Your task to perform on an android device: Clear the cart on amazon.com. Add razer blackwidow to the cart on amazon.com, then select checkout. Image 0: 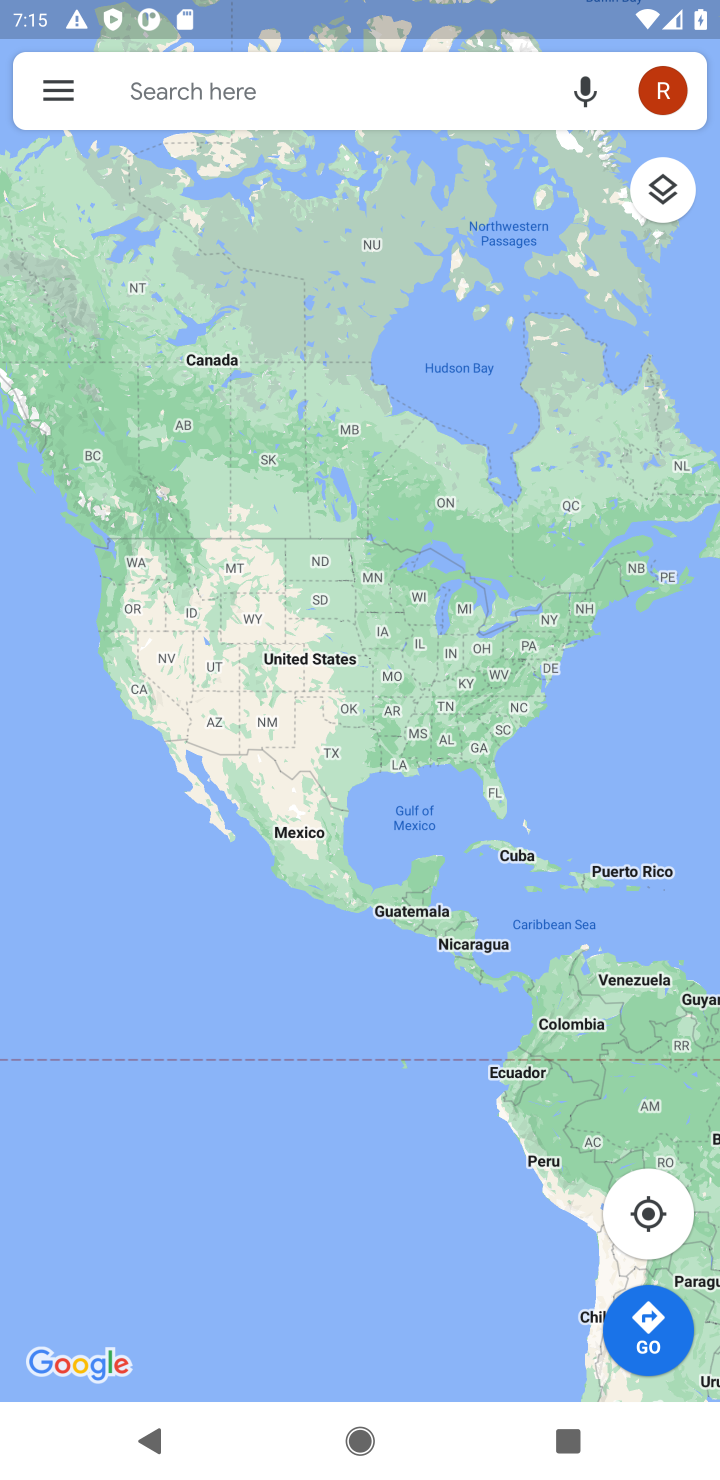
Step 0: press home button
Your task to perform on an android device: Clear the cart on amazon.com. Add razer blackwidow to the cart on amazon.com, then select checkout. Image 1: 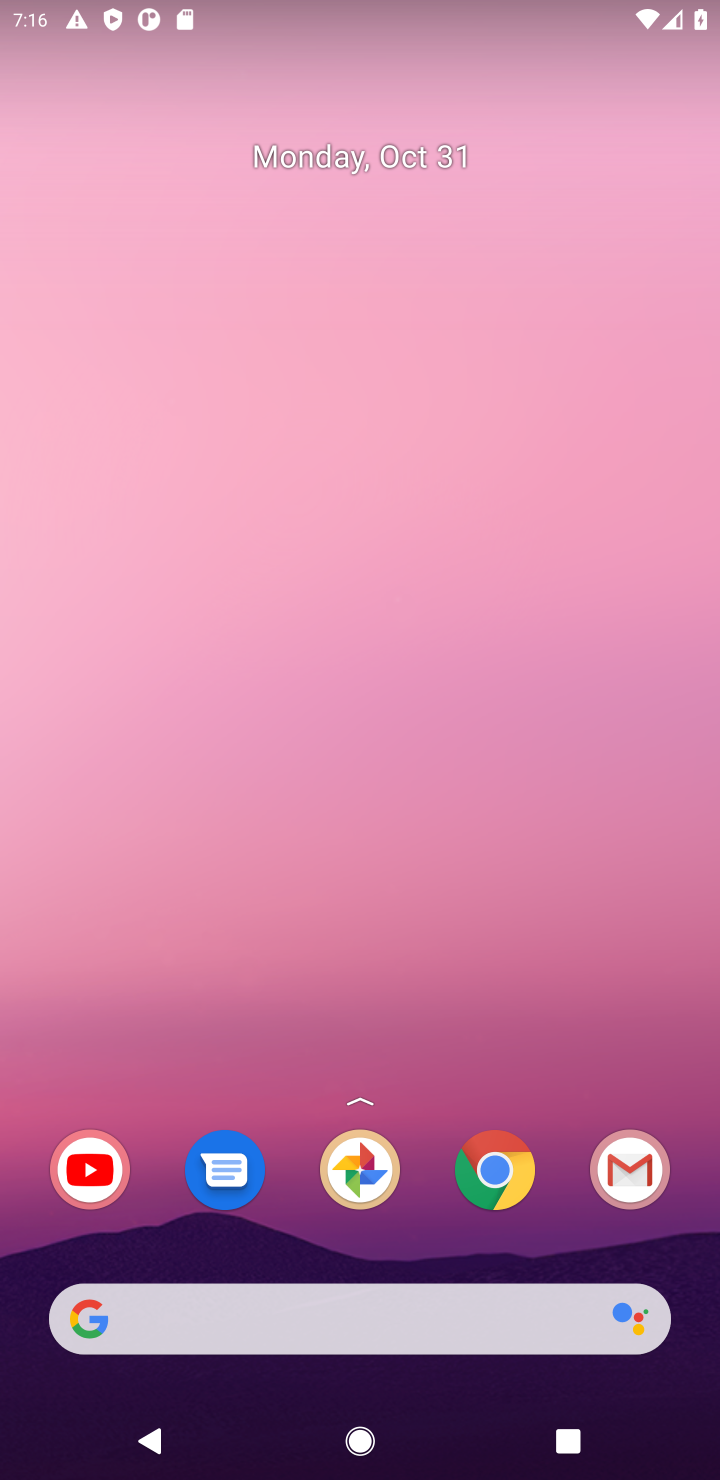
Step 1: click (500, 1166)
Your task to perform on an android device: Clear the cart on amazon.com. Add razer blackwidow to the cart on amazon.com, then select checkout. Image 2: 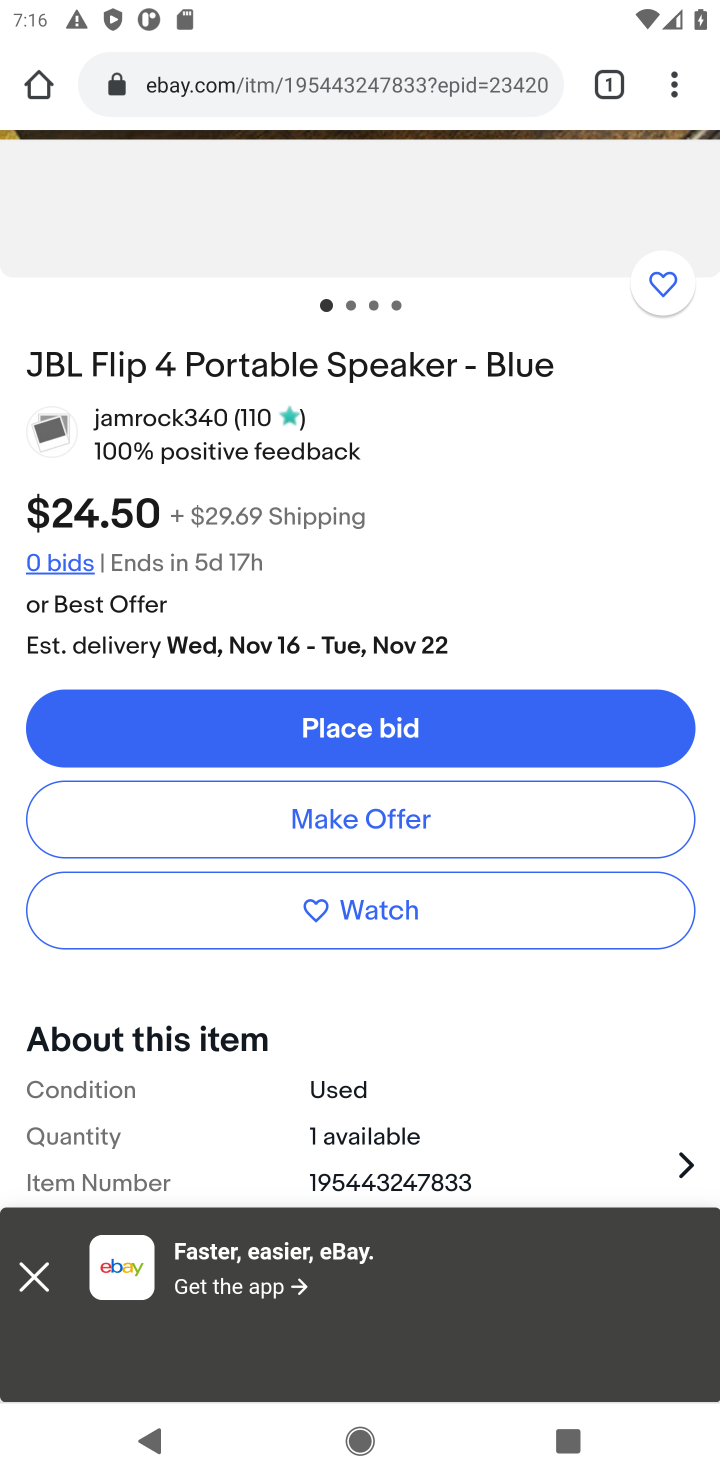
Step 2: click (297, 80)
Your task to perform on an android device: Clear the cart on amazon.com. Add razer blackwidow to the cart on amazon.com, then select checkout. Image 3: 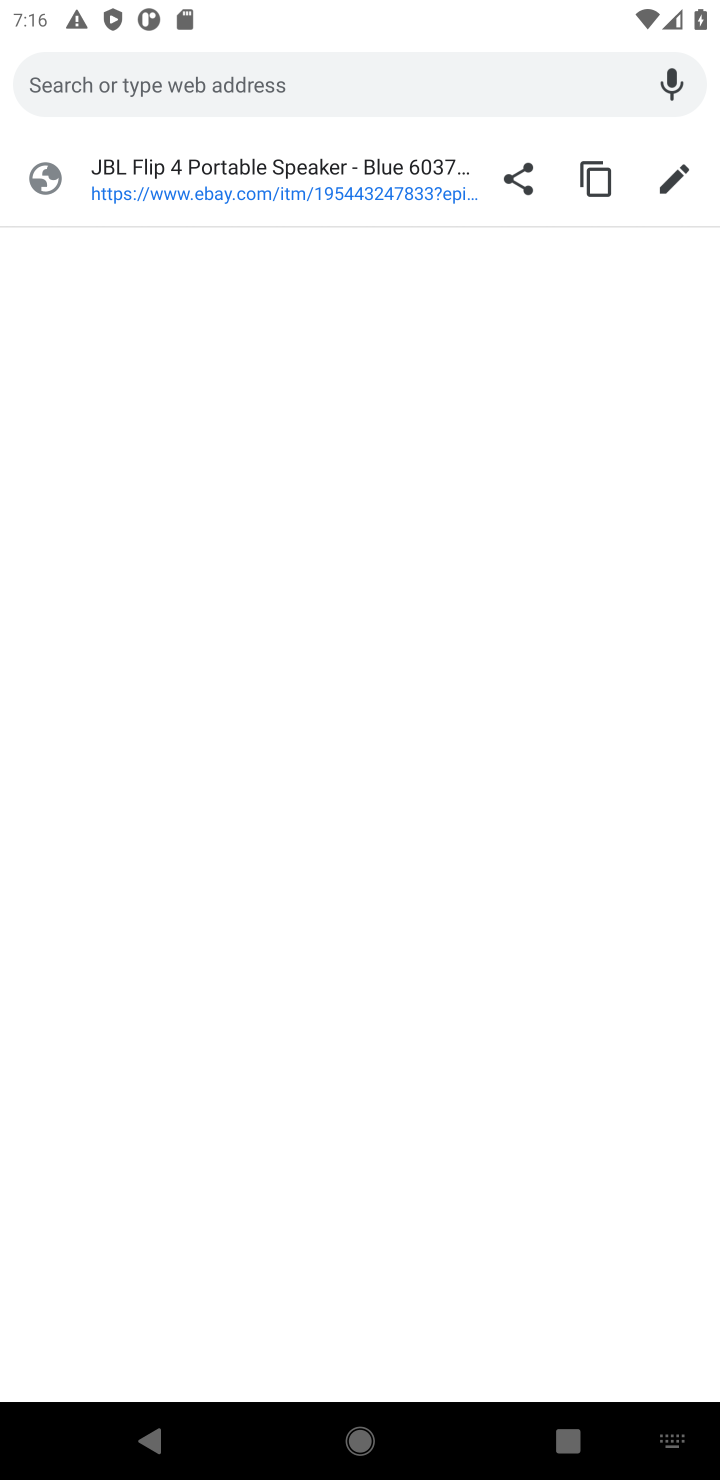
Step 3: press enter
Your task to perform on an android device: Clear the cart on amazon.com. Add razer blackwidow to the cart on amazon.com, then select checkout. Image 4: 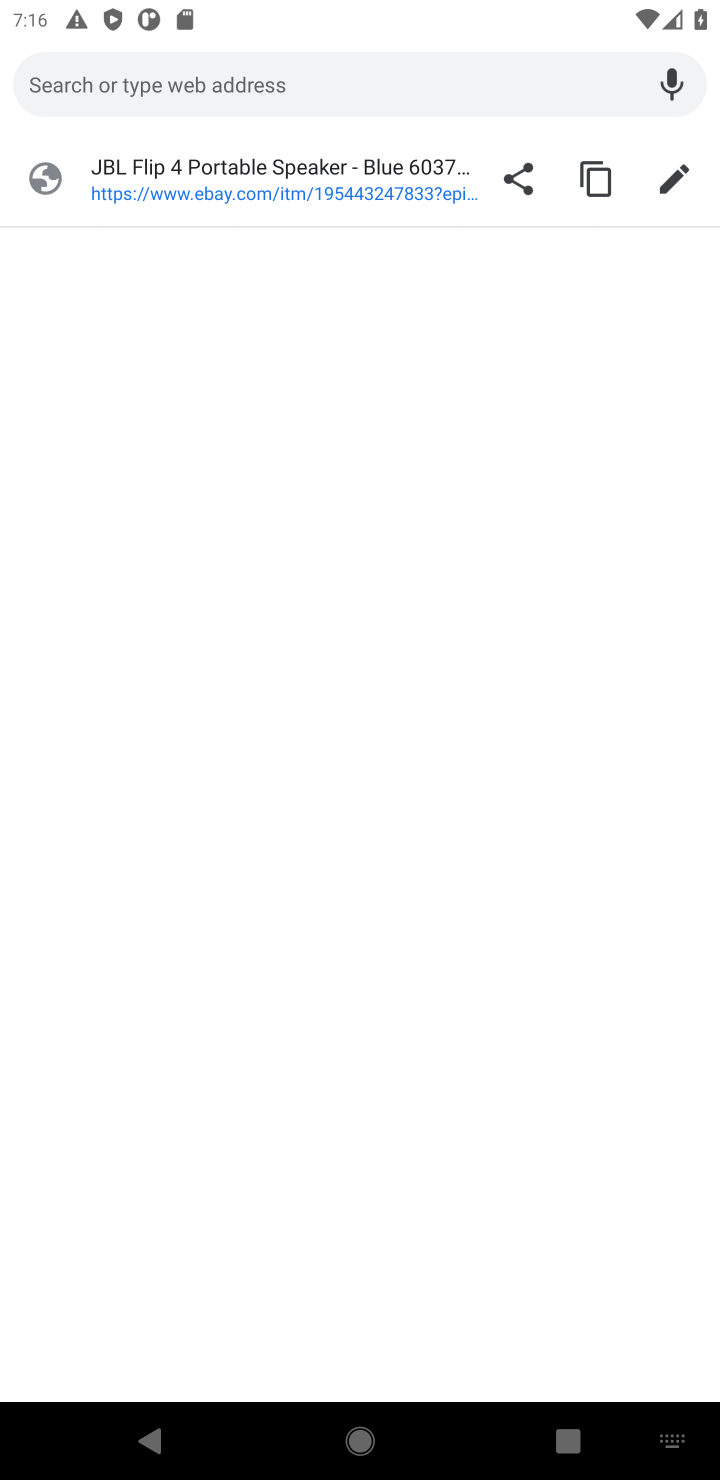
Step 4: type "amazon.com"
Your task to perform on an android device: Clear the cart on amazon.com. Add razer blackwidow to the cart on amazon.com, then select checkout. Image 5: 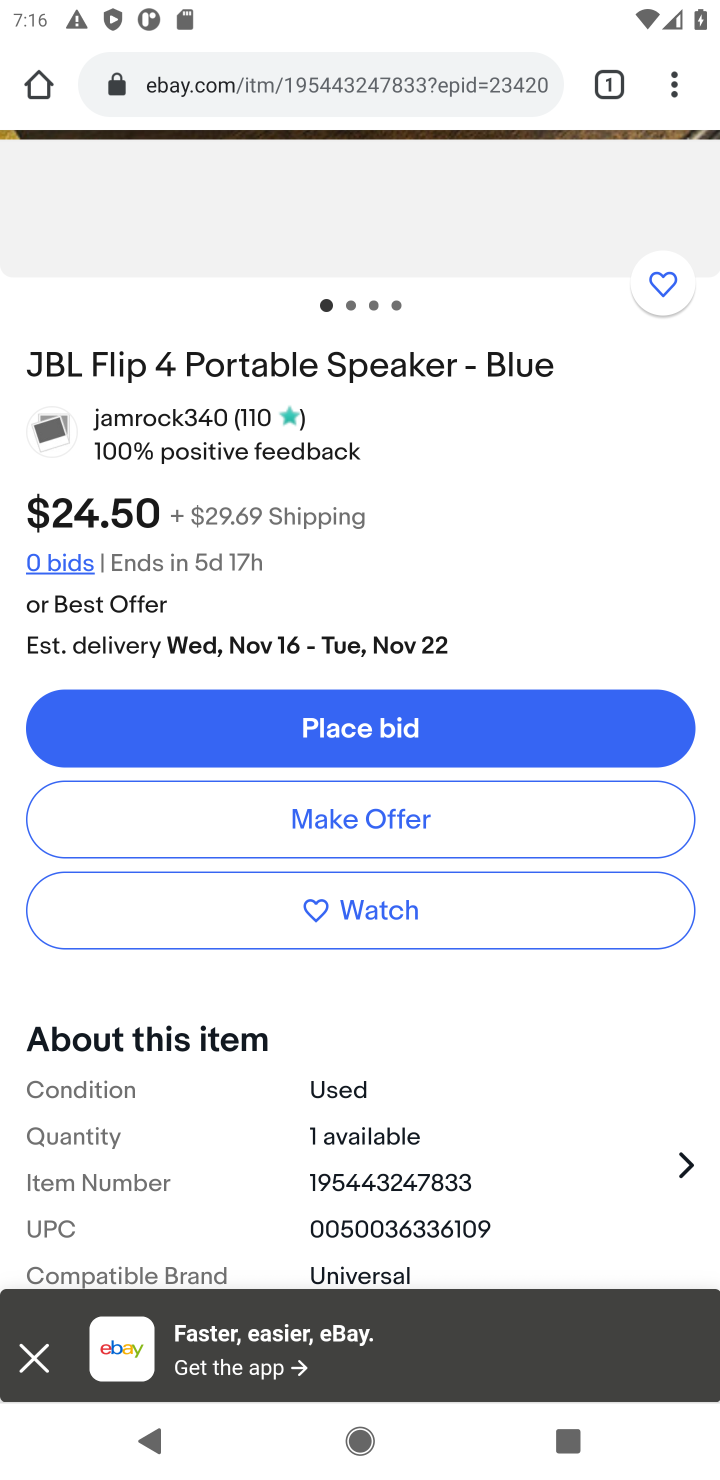
Step 5: click (343, 74)
Your task to perform on an android device: Clear the cart on amazon.com. Add razer blackwidow to the cart on amazon.com, then select checkout. Image 6: 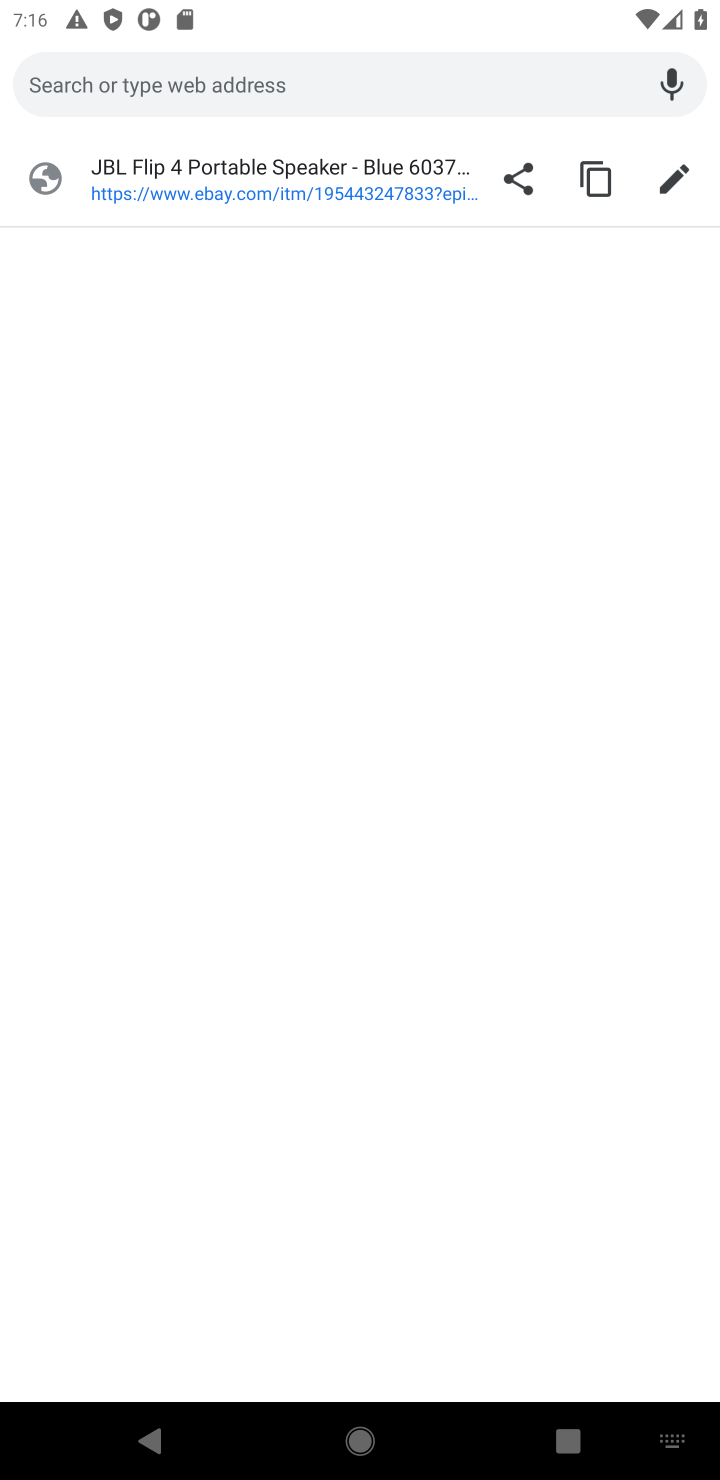
Step 6: type "amazon.com"
Your task to perform on an android device: Clear the cart on amazon.com. Add razer blackwidow to the cart on amazon.com, then select checkout. Image 7: 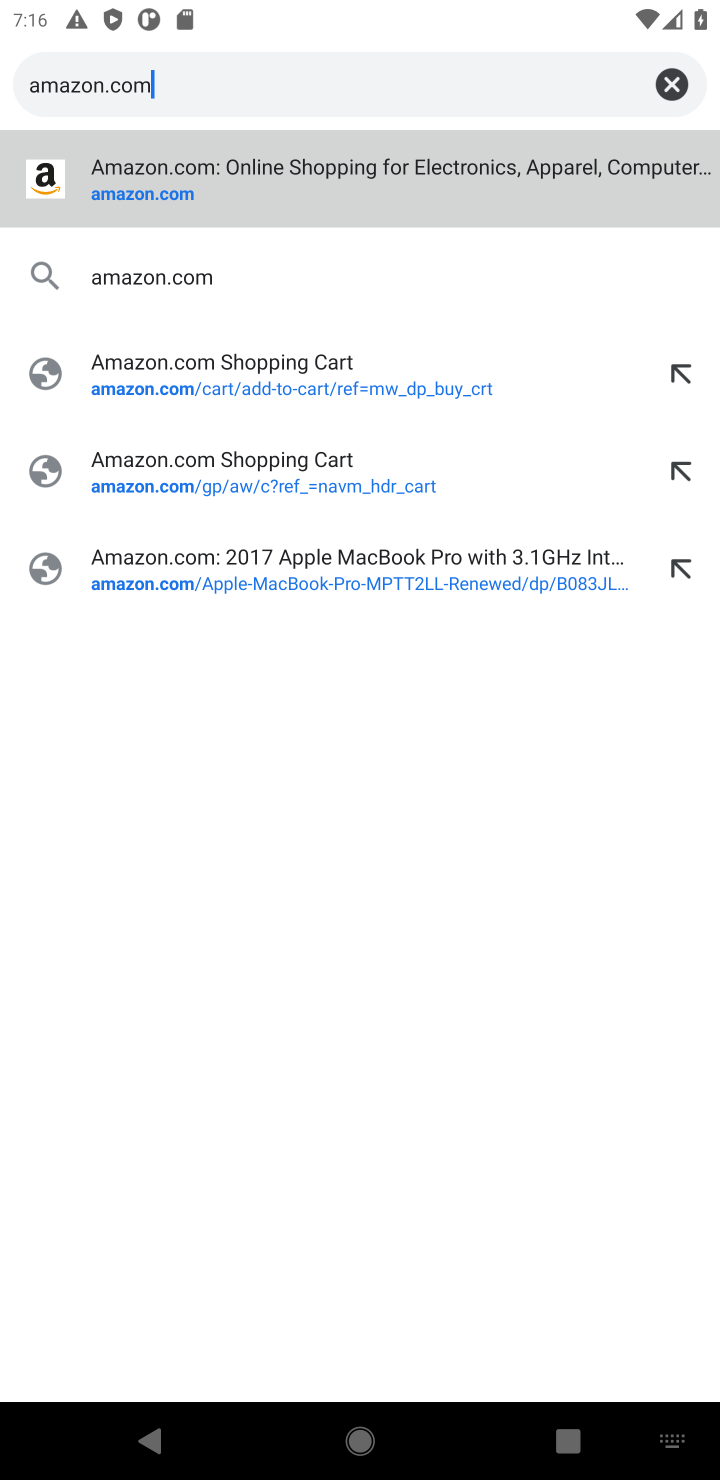
Step 7: press enter
Your task to perform on an android device: Clear the cart on amazon.com. Add razer blackwidow to the cart on amazon.com, then select checkout. Image 8: 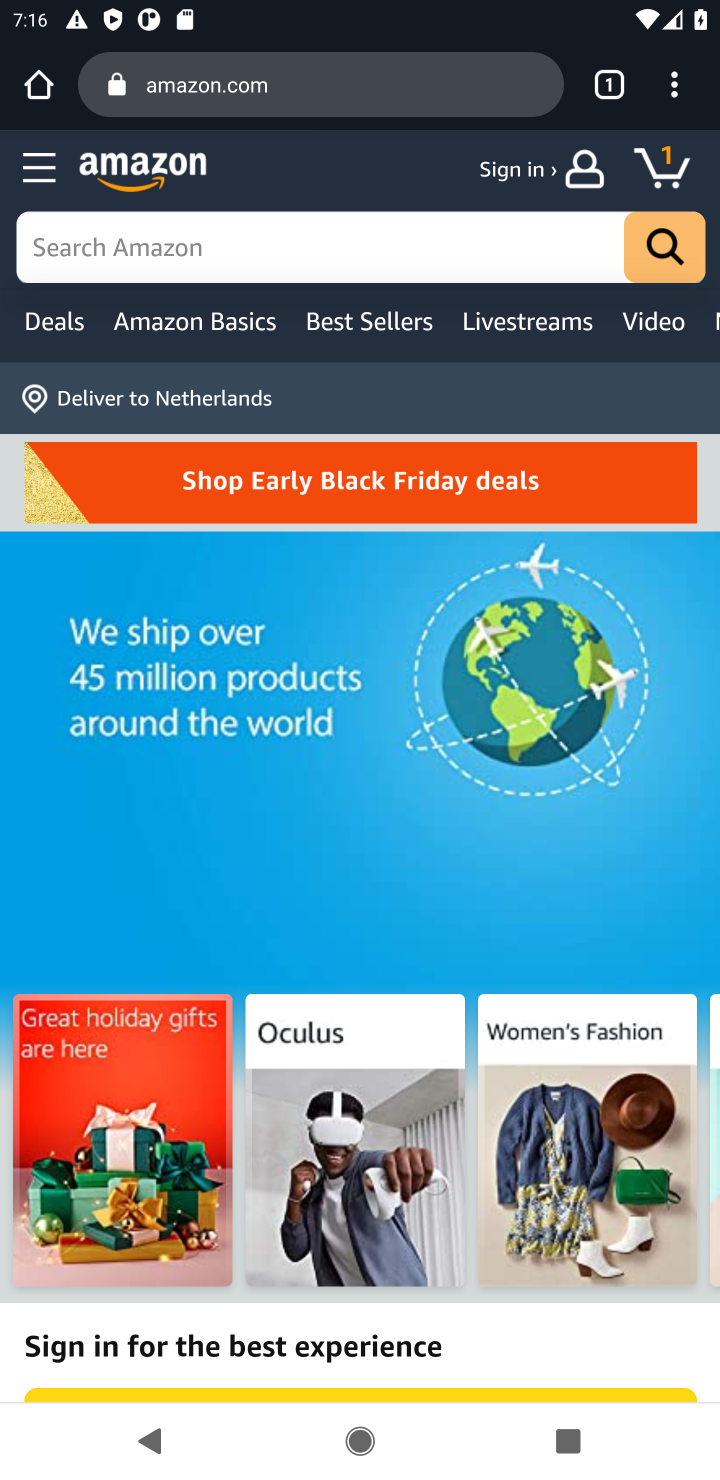
Step 8: click (661, 176)
Your task to perform on an android device: Clear the cart on amazon.com. Add razer blackwidow to the cart on amazon.com, then select checkout. Image 9: 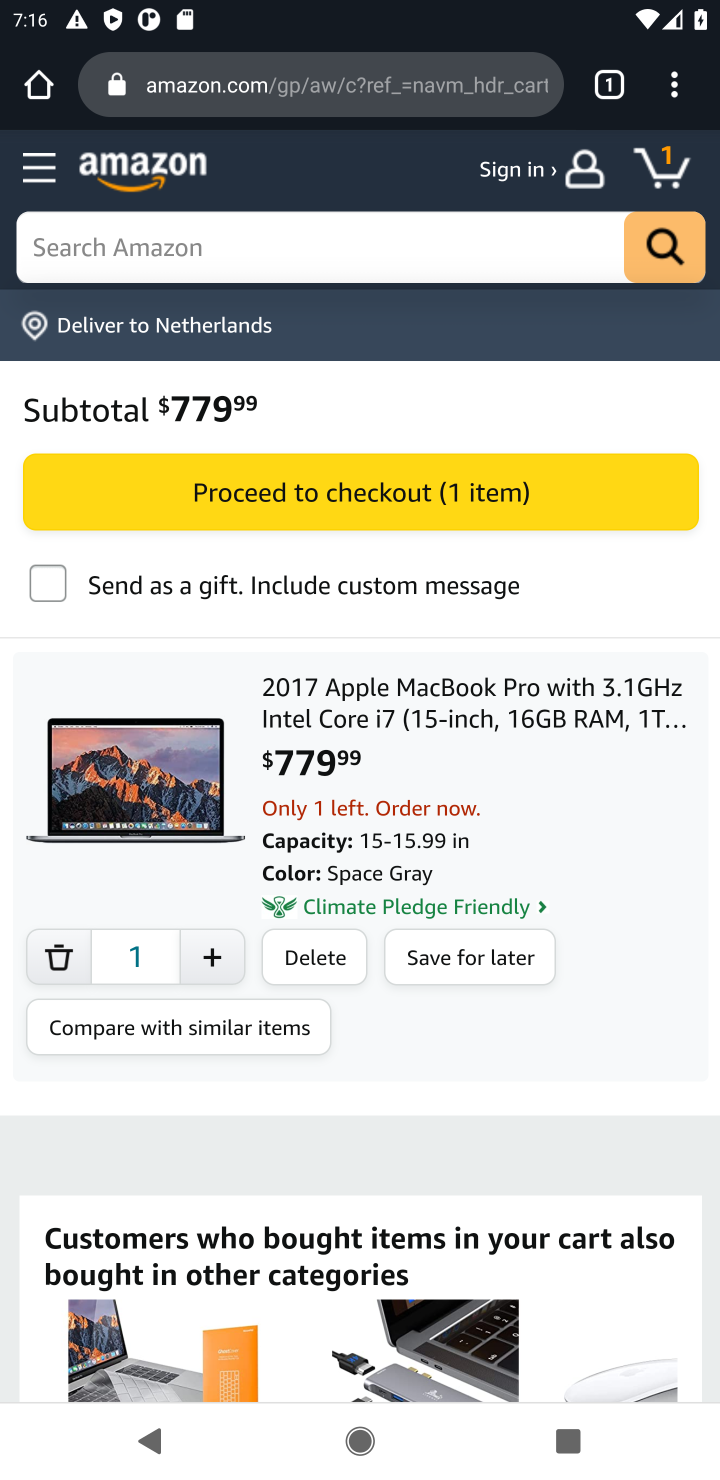
Step 9: click (326, 971)
Your task to perform on an android device: Clear the cart on amazon.com. Add razer blackwidow to the cart on amazon.com, then select checkout. Image 10: 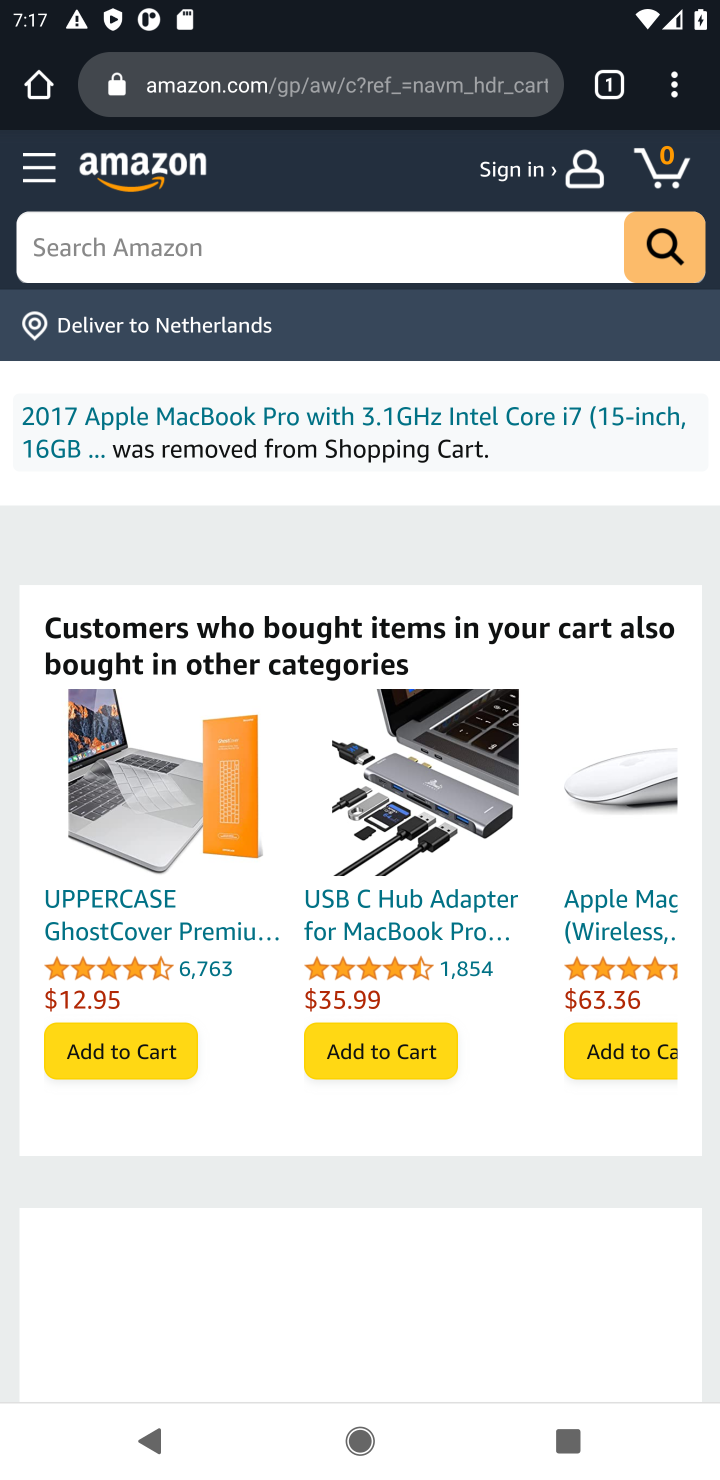
Step 10: click (245, 262)
Your task to perform on an android device: Clear the cart on amazon.com. Add razer blackwidow to the cart on amazon.com, then select checkout. Image 11: 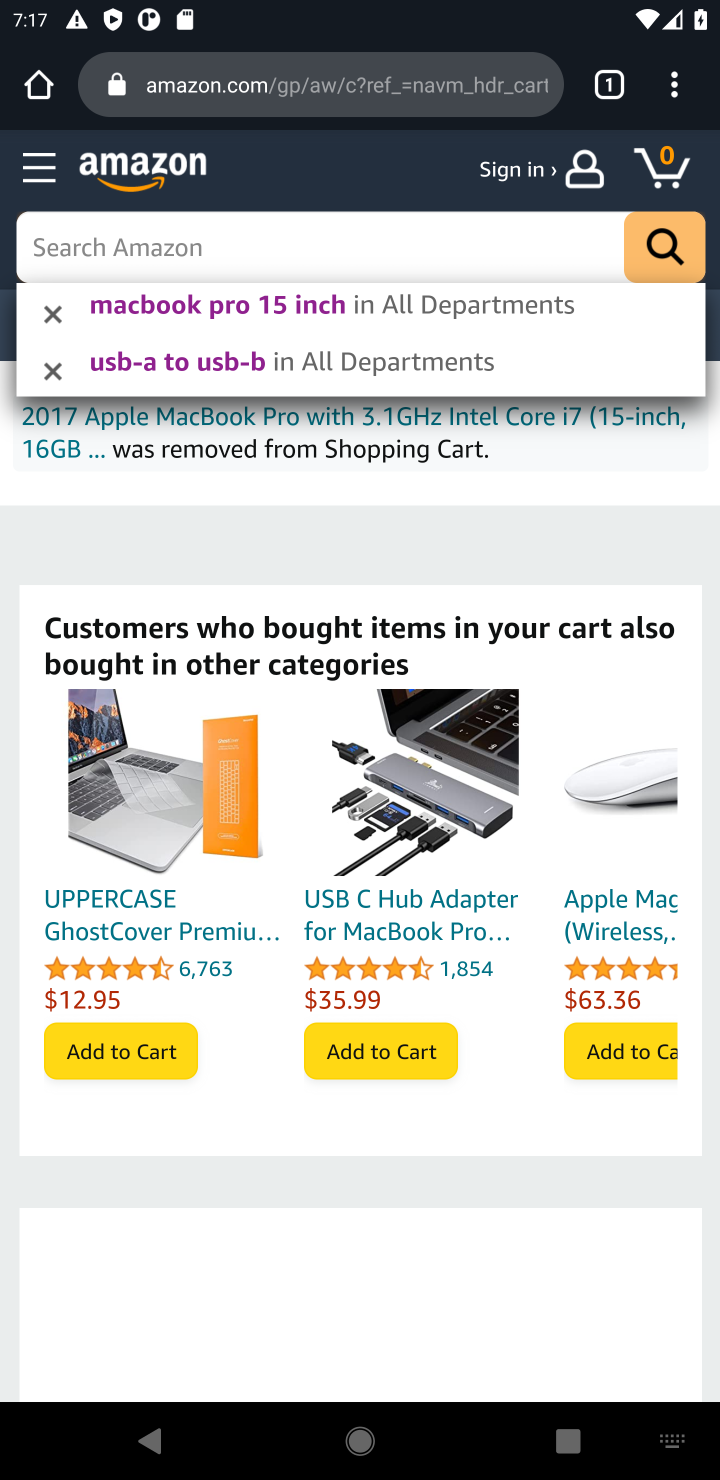
Step 11: type "blackwidow"
Your task to perform on an android device: Clear the cart on amazon.com. Add razer blackwidow to the cart on amazon.com, then select checkout. Image 12: 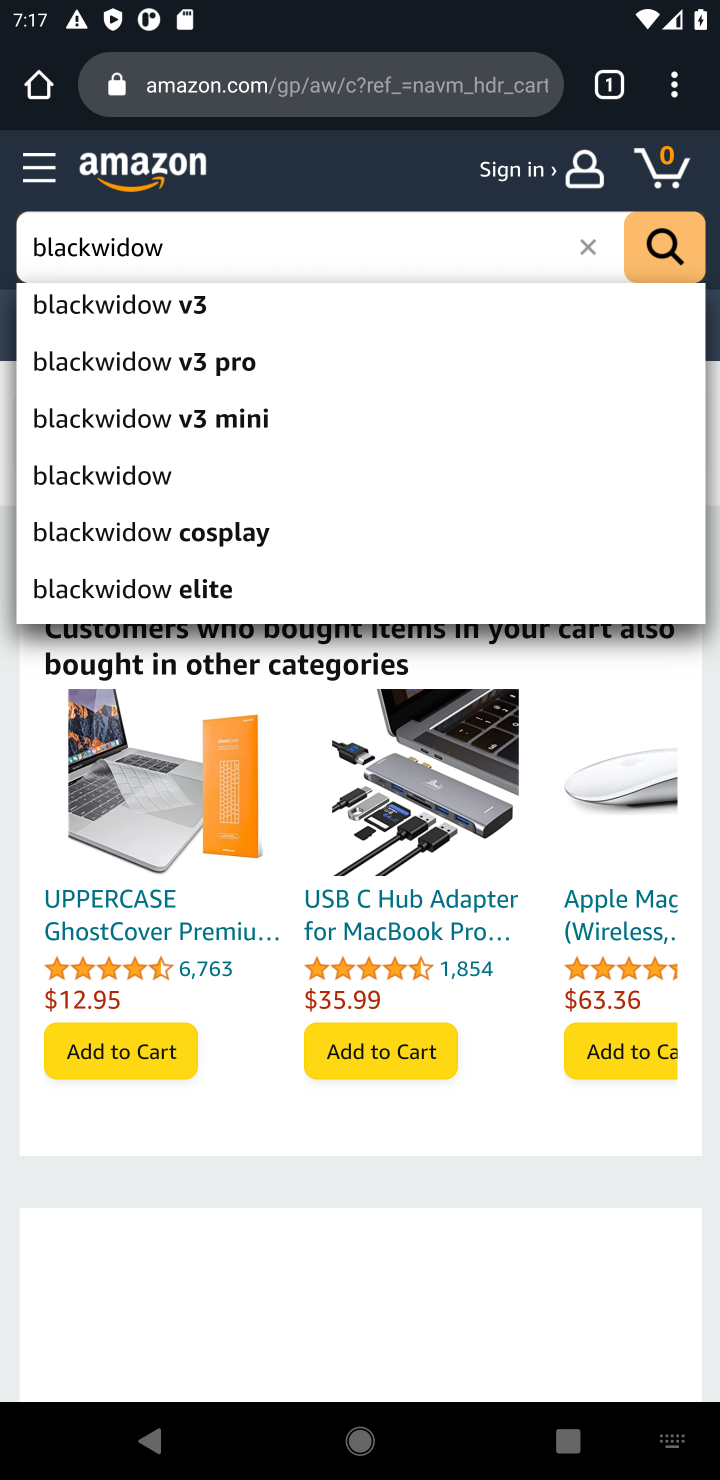
Step 12: press enter
Your task to perform on an android device: Clear the cart on amazon.com. Add razer blackwidow to the cart on amazon.com, then select checkout. Image 13: 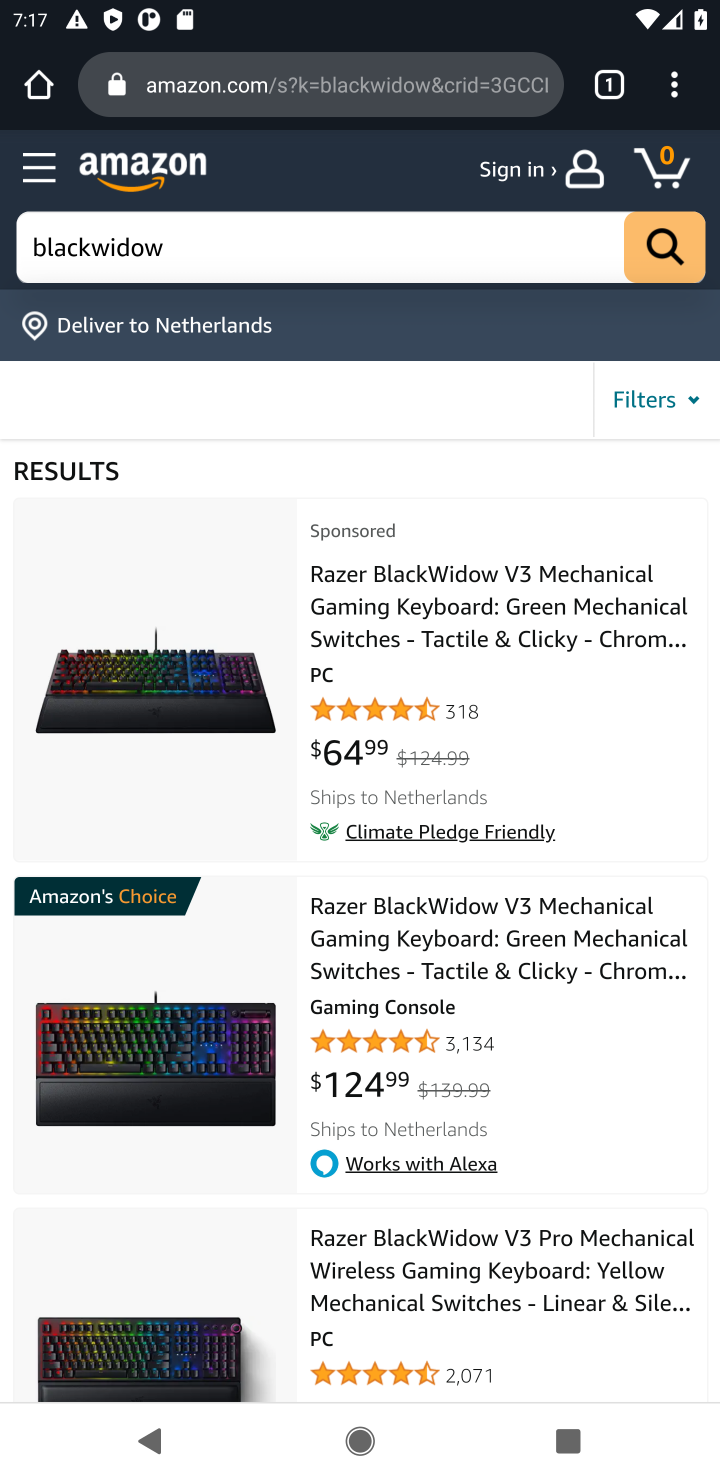
Step 13: click (182, 1047)
Your task to perform on an android device: Clear the cart on amazon.com. Add razer blackwidow to the cart on amazon.com, then select checkout. Image 14: 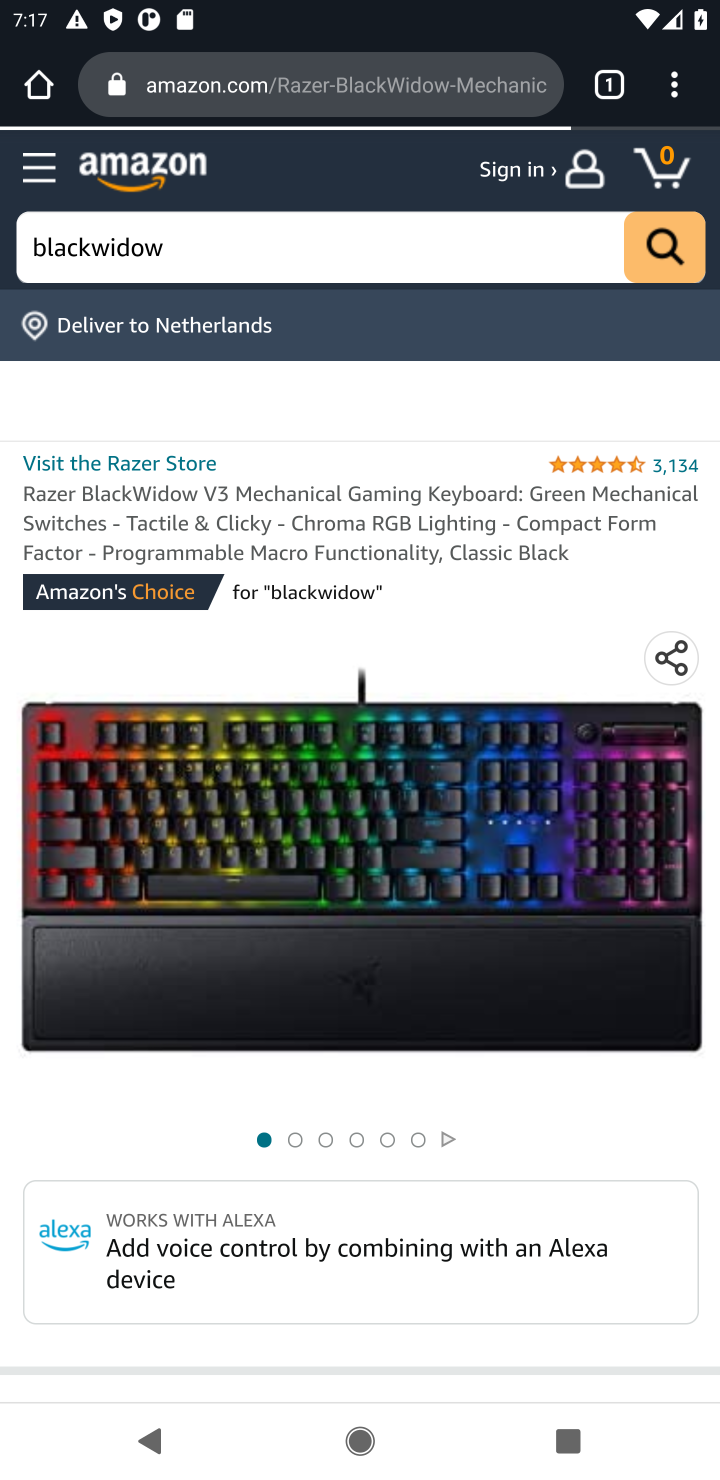
Step 14: drag from (412, 1047) to (434, 258)
Your task to perform on an android device: Clear the cart on amazon.com. Add razer blackwidow to the cart on amazon.com, then select checkout. Image 15: 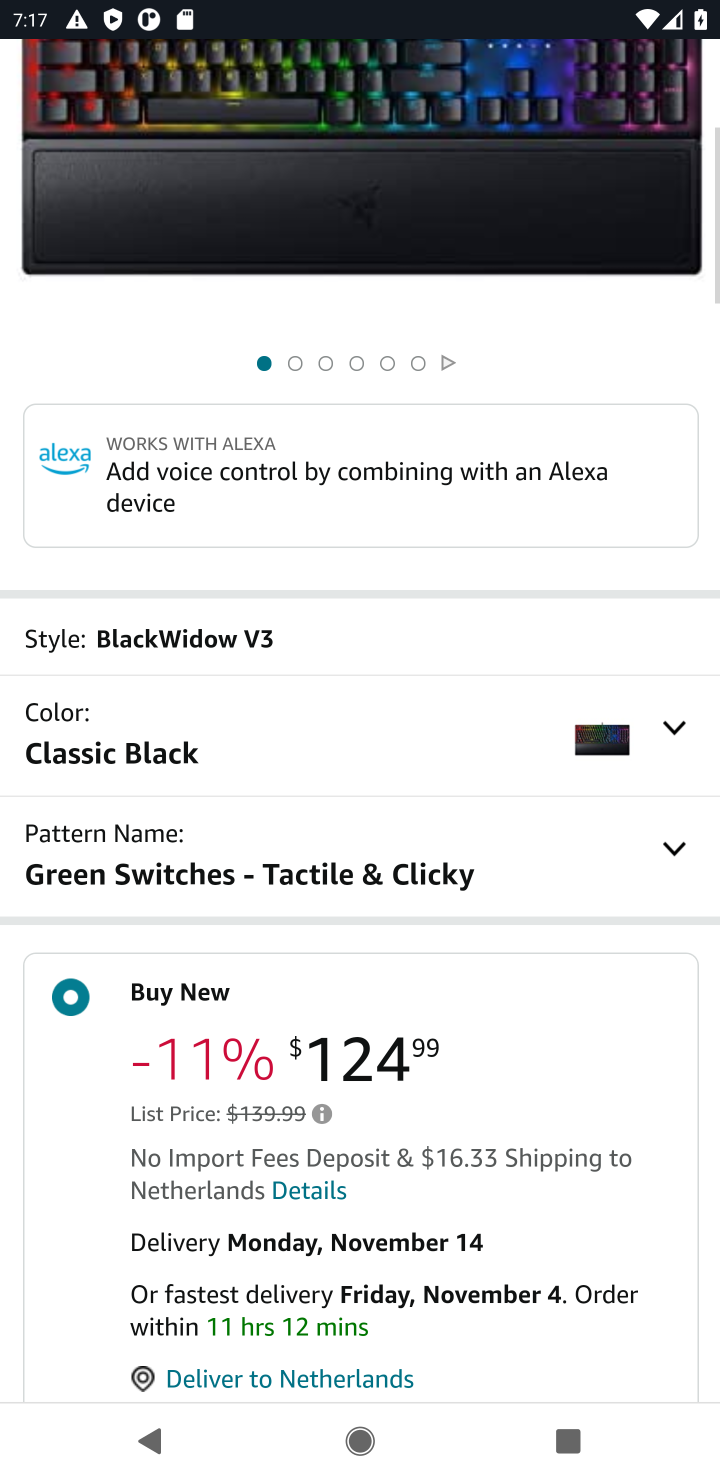
Step 15: drag from (377, 1226) to (409, 346)
Your task to perform on an android device: Clear the cart on amazon.com. Add razer blackwidow to the cart on amazon.com, then select checkout. Image 16: 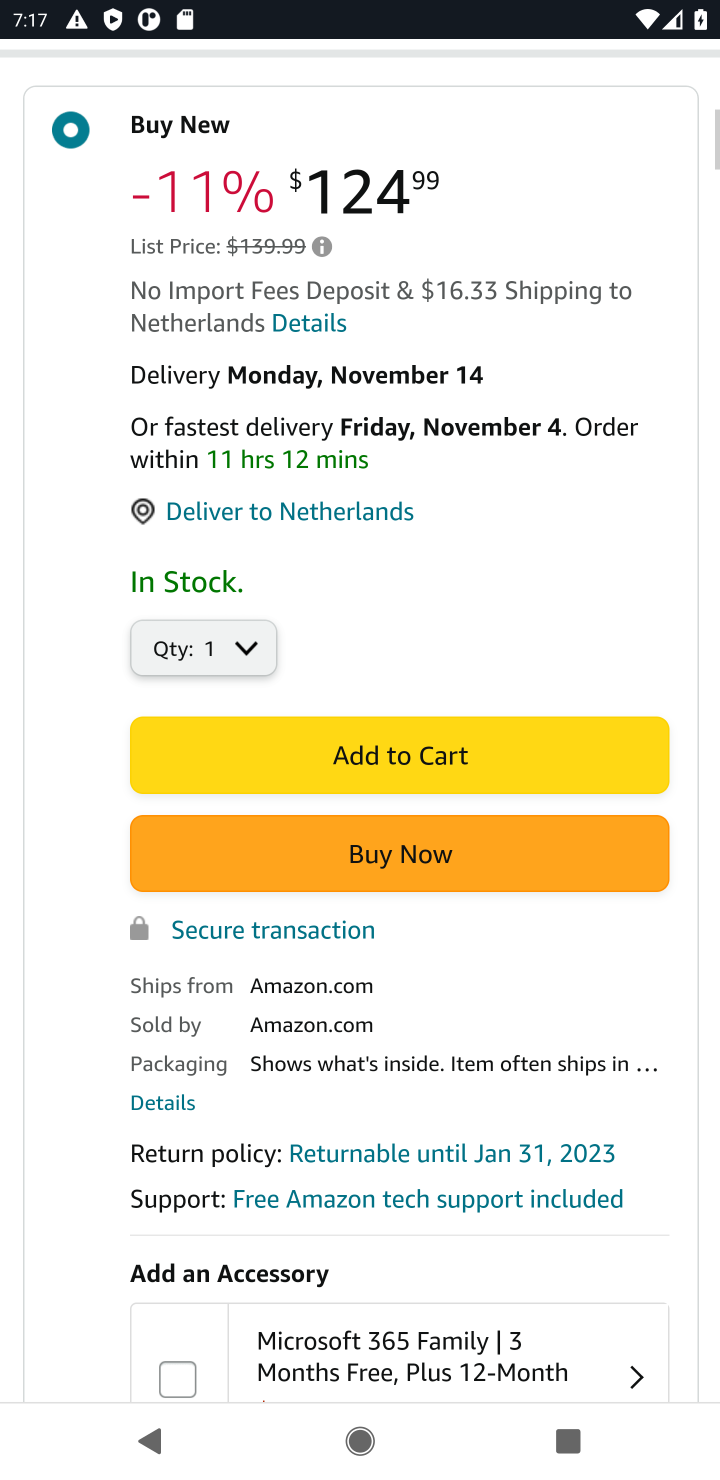
Step 16: click (431, 768)
Your task to perform on an android device: Clear the cart on amazon.com. Add razer blackwidow to the cart on amazon.com, then select checkout. Image 17: 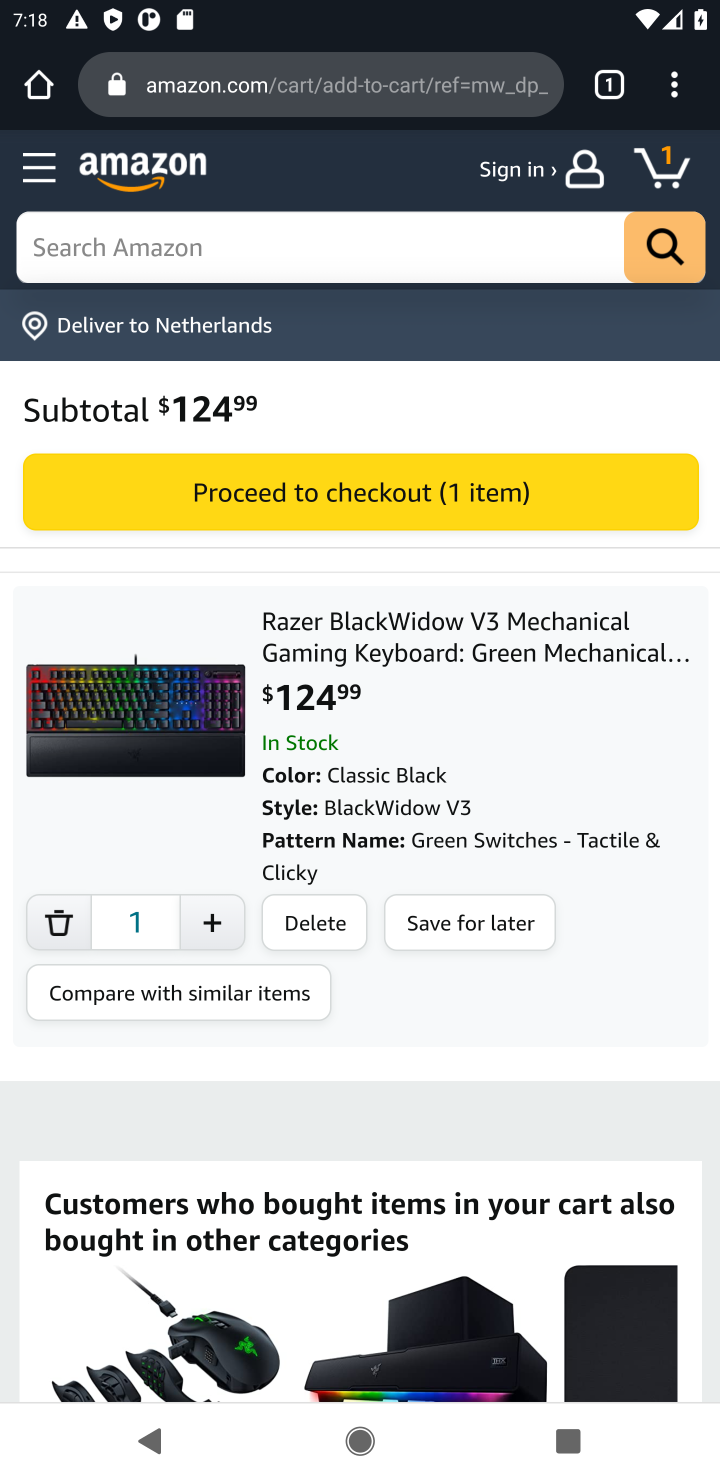
Step 17: click (457, 464)
Your task to perform on an android device: Clear the cart on amazon.com. Add razer blackwidow to the cart on amazon.com, then select checkout. Image 18: 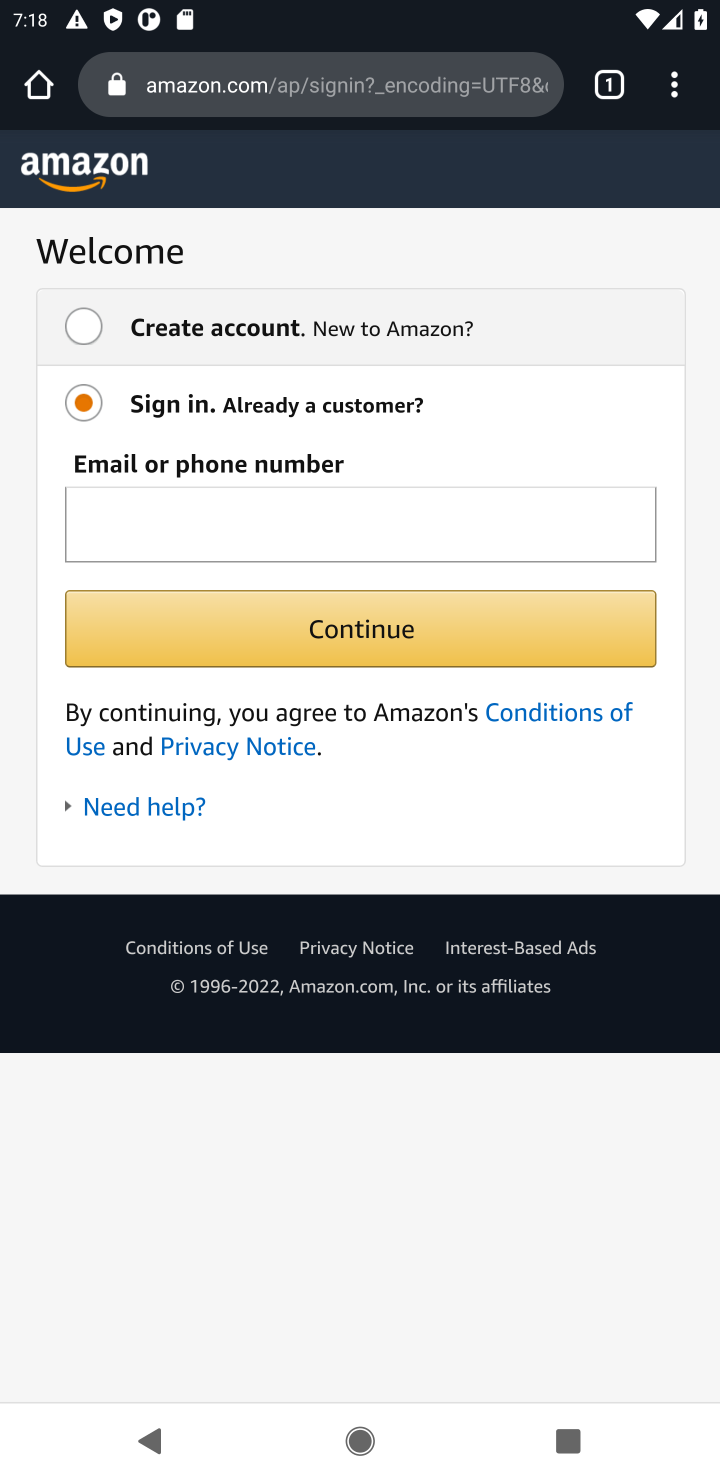
Step 18: task complete